Your task to perform on an android device: toggle notifications settings in the gmail app Image 0: 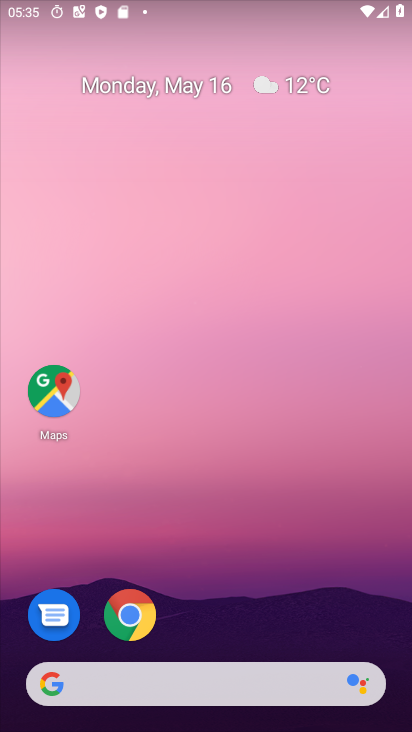
Step 0: drag from (314, 617) to (201, 208)
Your task to perform on an android device: toggle notifications settings in the gmail app Image 1: 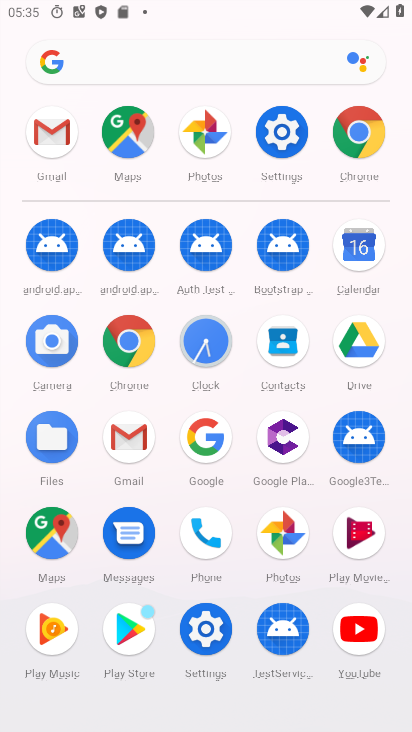
Step 1: click (132, 405)
Your task to perform on an android device: toggle notifications settings in the gmail app Image 2: 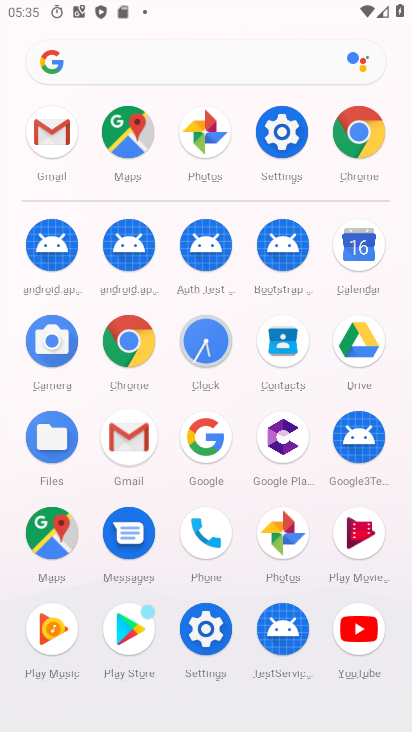
Step 2: click (120, 435)
Your task to perform on an android device: toggle notifications settings in the gmail app Image 3: 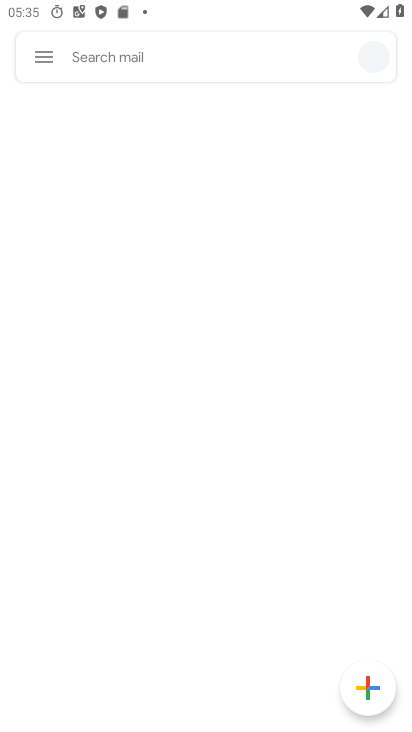
Step 3: click (121, 436)
Your task to perform on an android device: toggle notifications settings in the gmail app Image 4: 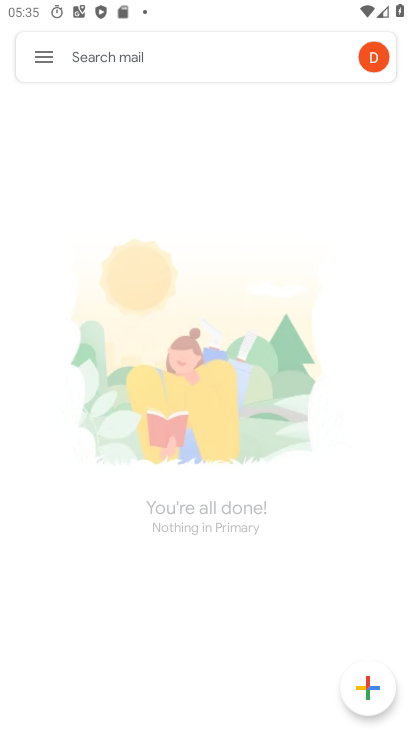
Step 4: click (121, 436)
Your task to perform on an android device: toggle notifications settings in the gmail app Image 5: 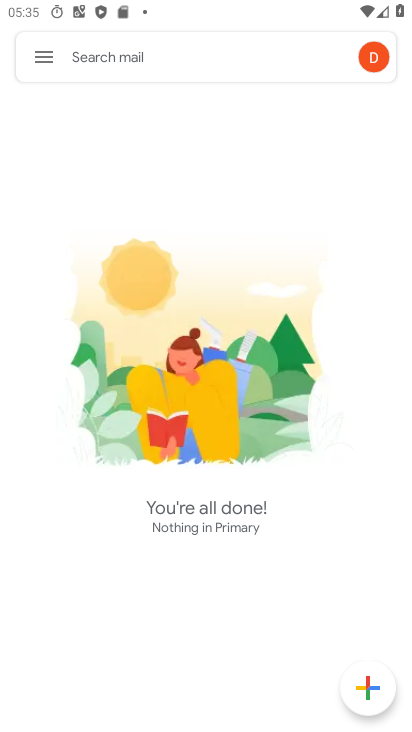
Step 5: click (53, 62)
Your task to perform on an android device: toggle notifications settings in the gmail app Image 6: 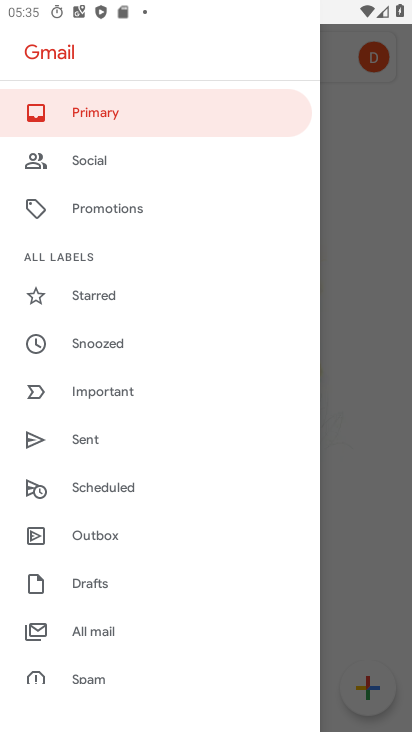
Step 6: drag from (109, 474) to (56, 99)
Your task to perform on an android device: toggle notifications settings in the gmail app Image 7: 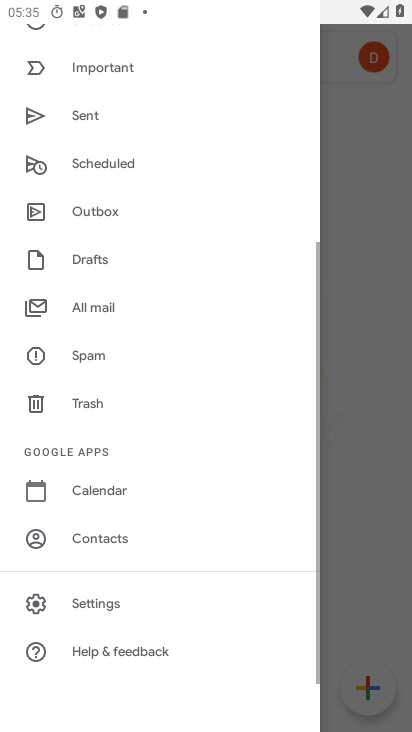
Step 7: drag from (162, 436) to (108, 86)
Your task to perform on an android device: toggle notifications settings in the gmail app Image 8: 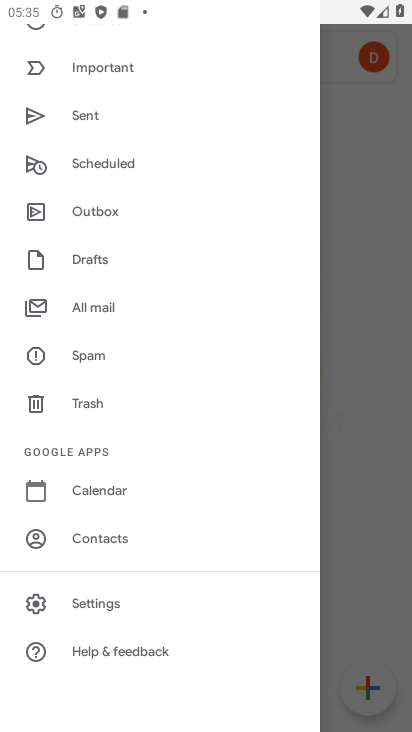
Step 8: click (92, 604)
Your task to perform on an android device: toggle notifications settings in the gmail app Image 9: 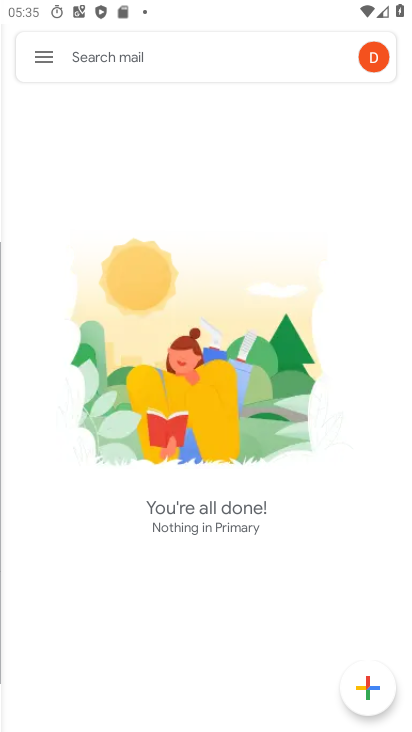
Step 9: click (92, 604)
Your task to perform on an android device: toggle notifications settings in the gmail app Image 10: 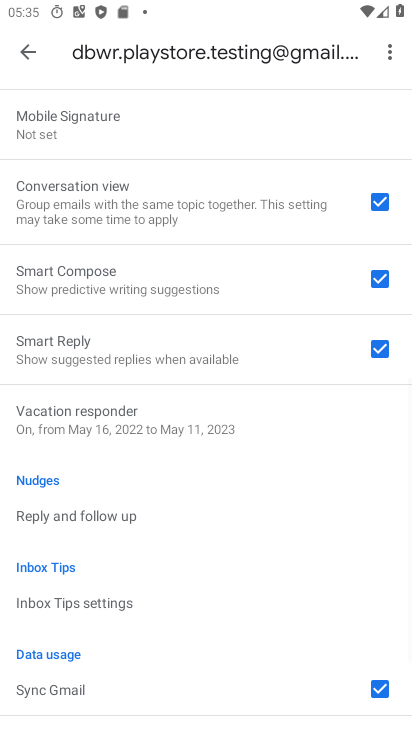
Step 10: drag from (94, 189) to (167, 526)
Your task to perform on an android device: toggle notifications settings in the gmail app Image 11: 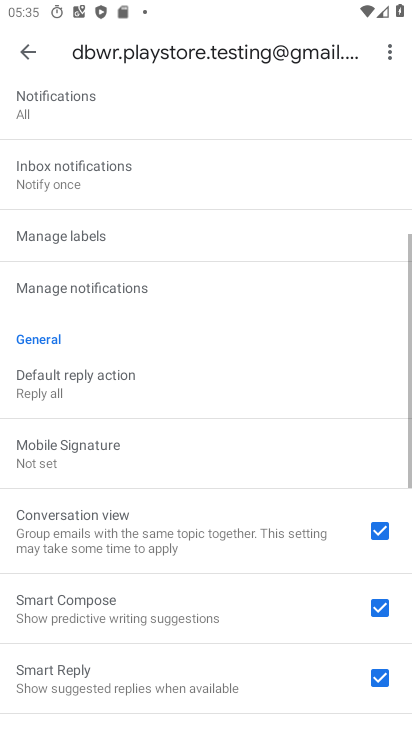
Step 11: drag from (169, 256) to (242, 609)
Your task to perform on an android device: toggle notifications settings in the gmail app Image 12: 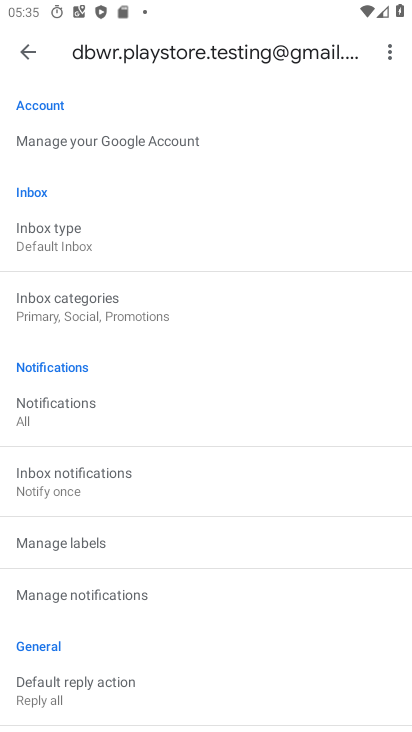
Step 12: click (53, 401)
Your task to perform on an android device: toggle notifications settings in the gmail app Image 13: 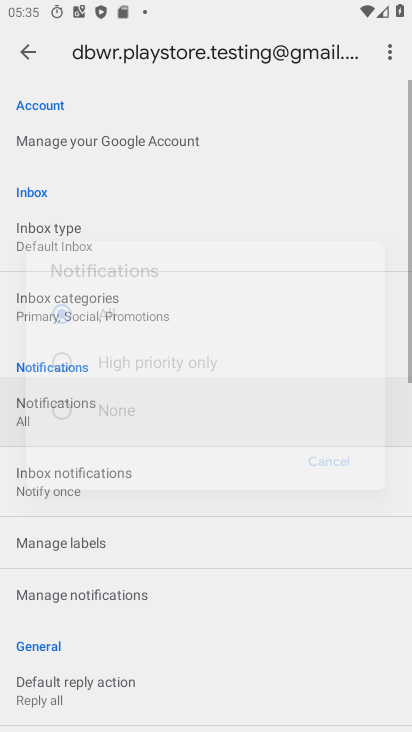
Step 13: click (53, 401)
Your task to perform on an android device: toggle notifications settings in the gmail app Image 14: 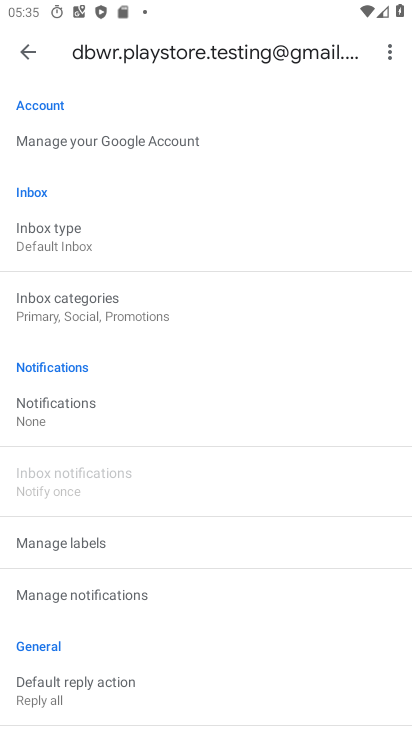
Step 14: click (46, 396)
Your task to perform on an android device: toggle notifications settings in the gmail app Image 15: 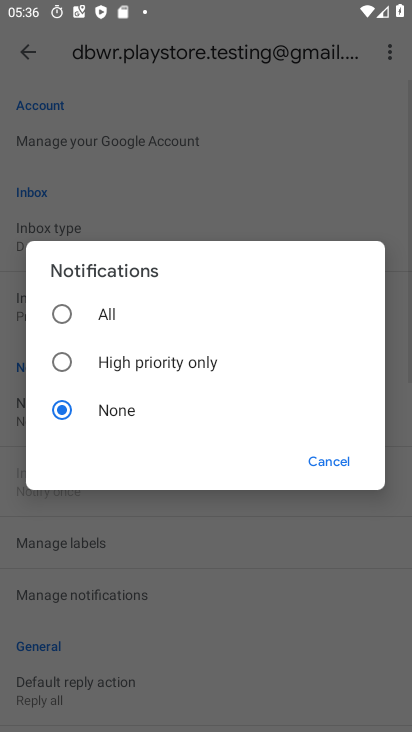
Step 15: click (64, 311)
Your task to perform on an android device: toggle notifications settings in the gmail app Image 16: 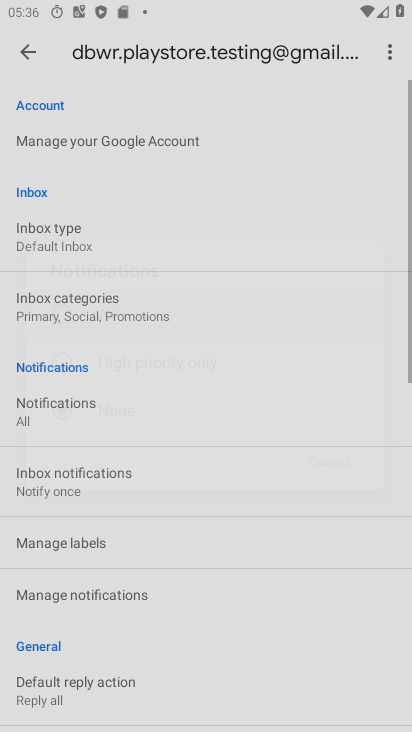
Step 16: click (63, 310)
Your task to perform on an android device: toggle notifications settings in the gmail app Image 17: 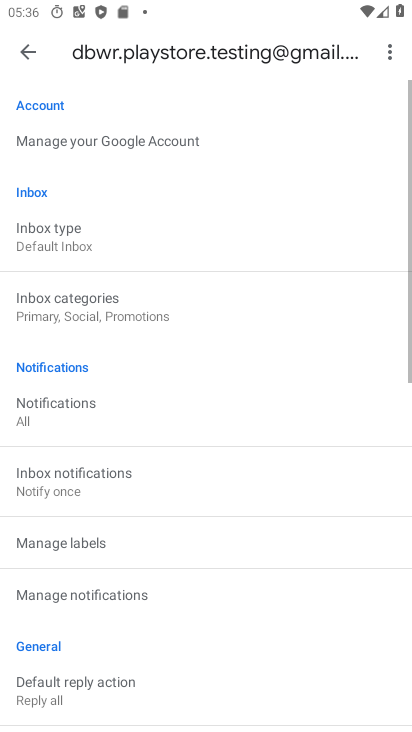
Step 17: click (61, 310)
Your task to perform on an android device: toggle notifications settings in the gmail app Image 18: 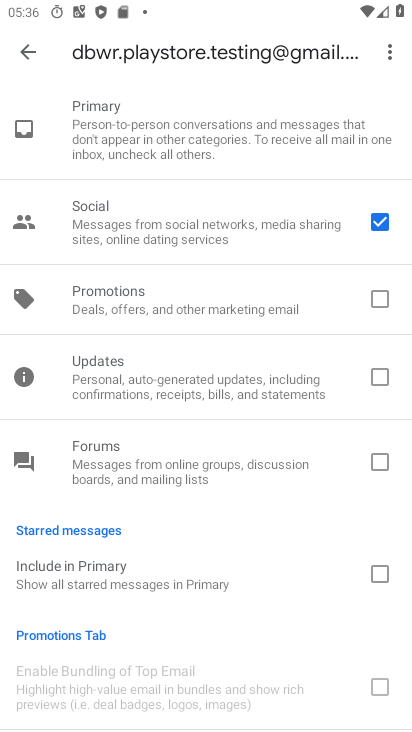
Step 18: task complete